Your task to perform on an android device: read, delete, or share a saved page in the chrome app Image 0: 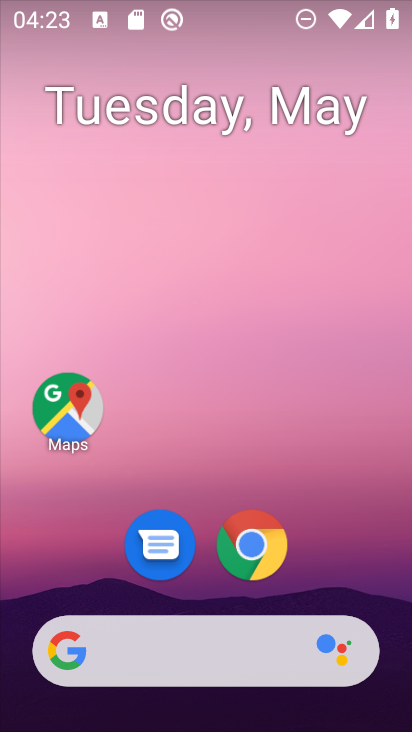
Step 0: click (254, 543)
Your task to perform on an android device: read, delete, or share a saved page in the chrome app Image 1: 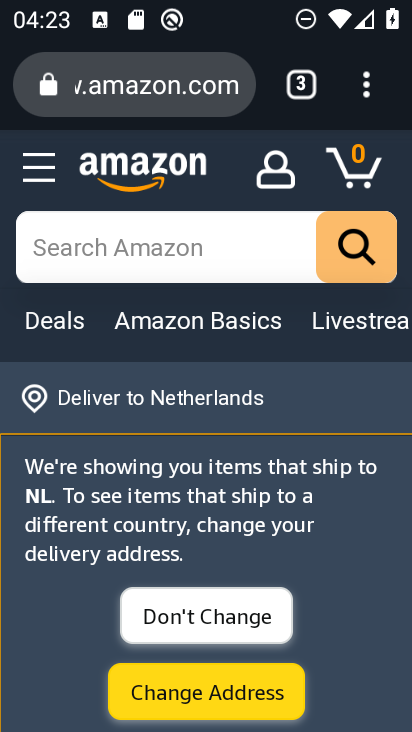
Step 1: click (367, 88)
Your task to perform on an android device: read, delete, or share a saved page in the chrome app Image 2: 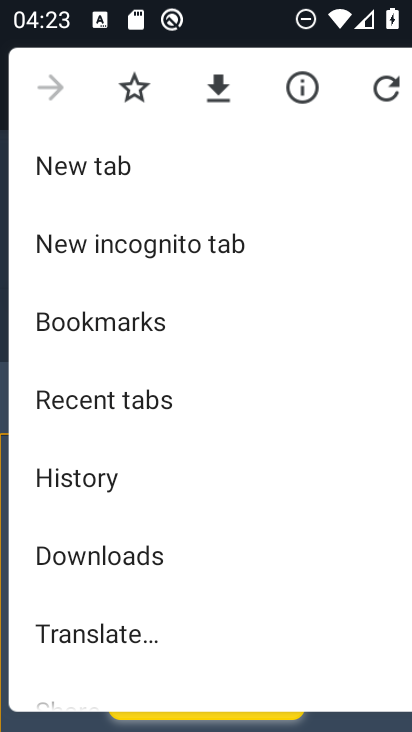
Step 2: click (90, 566)
Your task to perform on an android device: read, delete, or share a saved page in the chrome app Image 3: 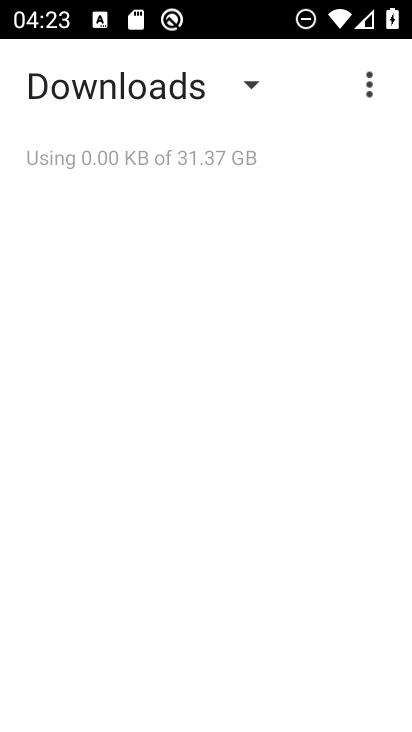
Step 3: click (251, 83)
Your task to perform on an android device: read, delete, or share a saved page in the chrome app Image 4: 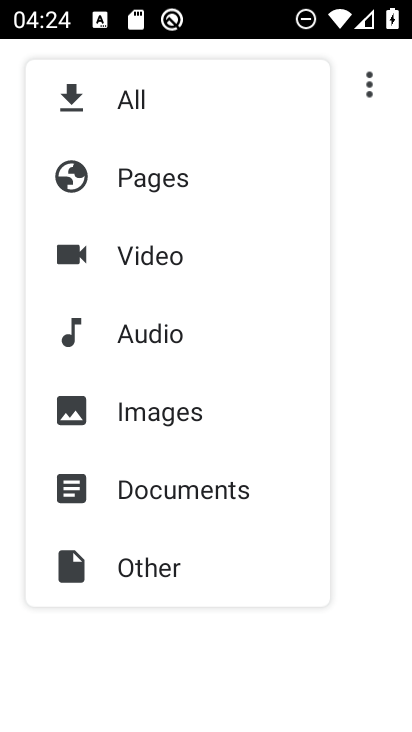
Step 4: click (137, 185)
Your task to perform on an android device: read, delete, or share a saved page in the chrome app Image 5: 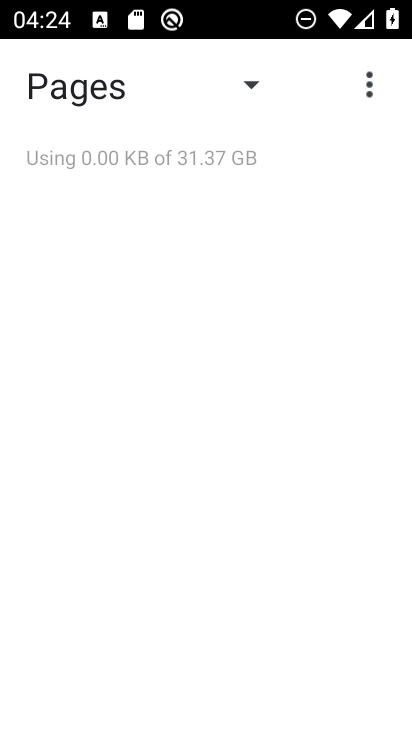
Step 5: task complete